Your task to perform on an android device: open sync settings in chrome Image 0: 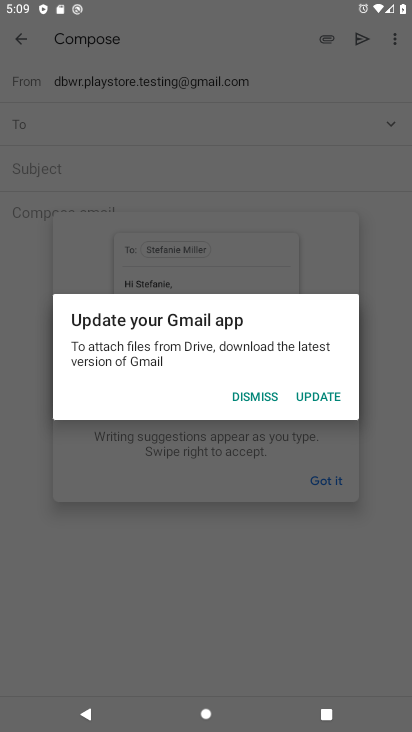
Step 0: press back button
Your task to perform on an android device: open sync settings in chrome Image 1: 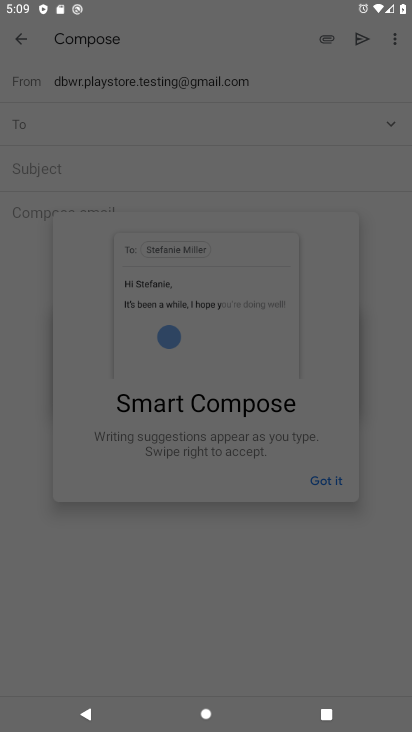
Step 1: press home button
Your task to perform on an android device: open sync settings in chrome Image 2: 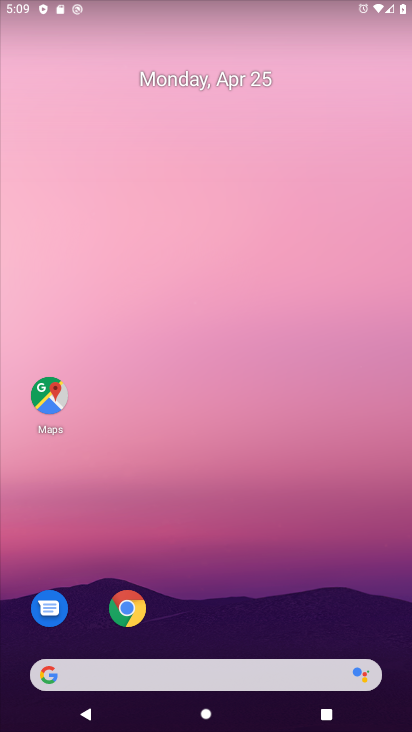
Step 2: drag from (273, 597) to (298, 16)
Your task to perform on an android device: open sync settings in chrome Image 3: 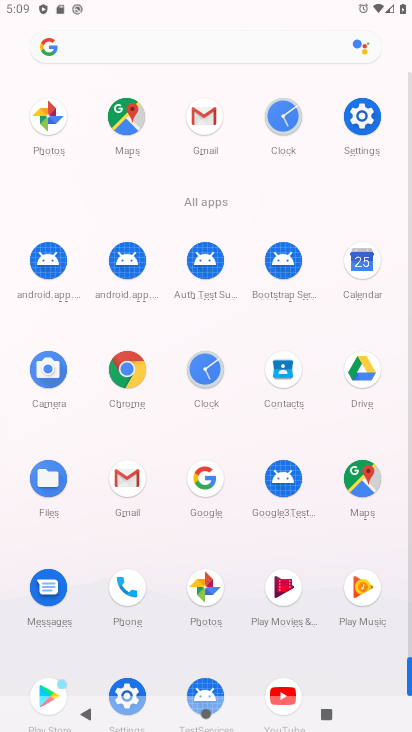
Step 3: drag from (11, 473) to (14, 167)
Your task to perform on an android device: open sync settings in chrome Image 4: 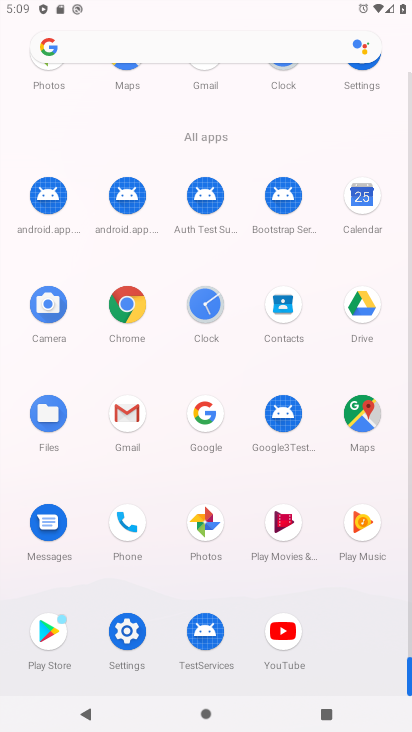
Step 4: click (130, 305)
Your task to perform on an android device: open sync settings in chrome Image 5: 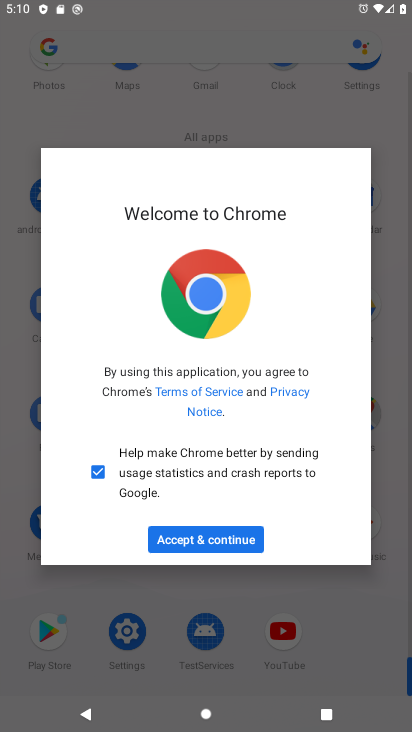
Step 5: click (238, 547)
Your task to perform on an android device: open sync settings in chrome Image 6: 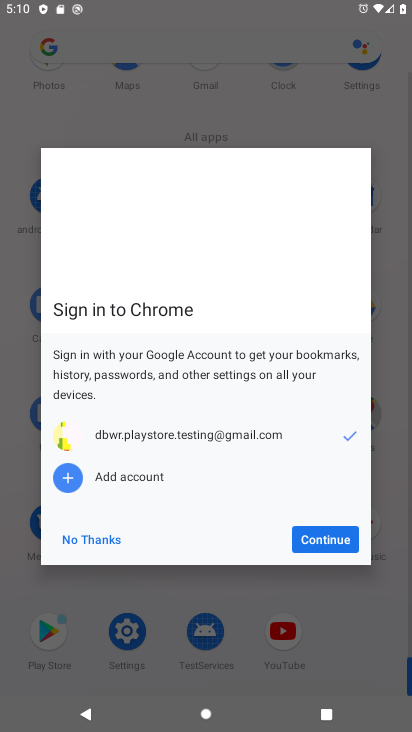
Step 6: click (307, 544)
Your task to perform on an android device: open sync settings in chrome Image 7: 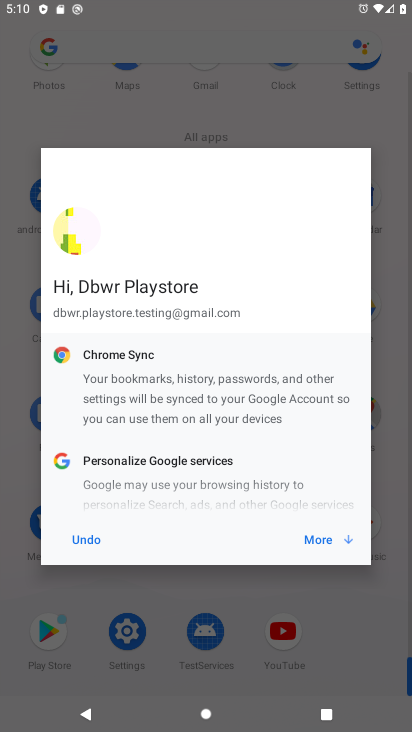
Step 7: click (311, 540)
Your task to perform on an android device: open sync settings in chrome Image 8: 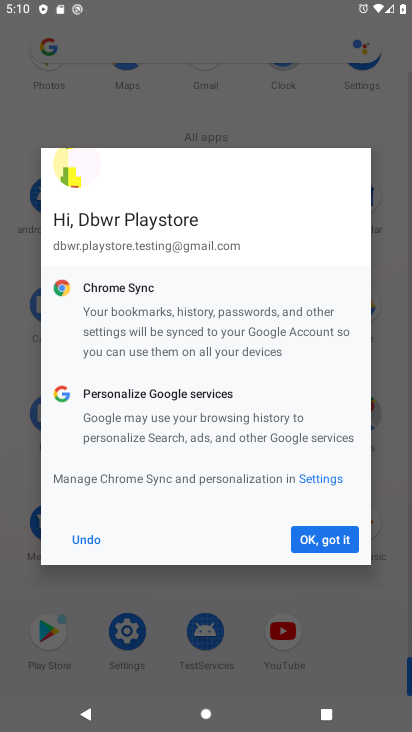
Step 8: click (311, 540)
Your task to perform on an android device: open sync settings in chrome Image 9: 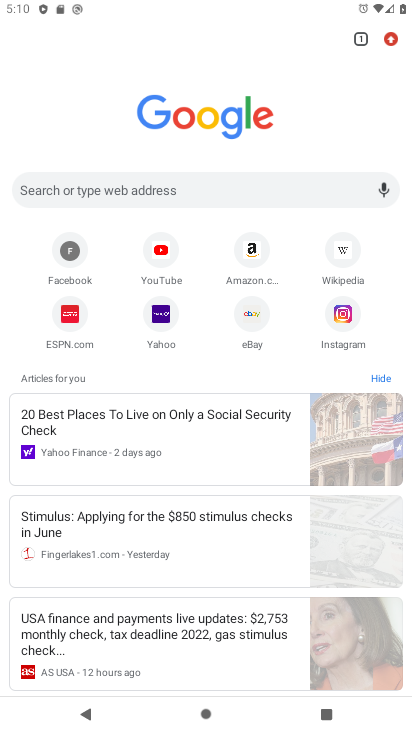
Step 9: click (197, 186)
Your task to perform on an android device: open sync settings in chrome Image 10: 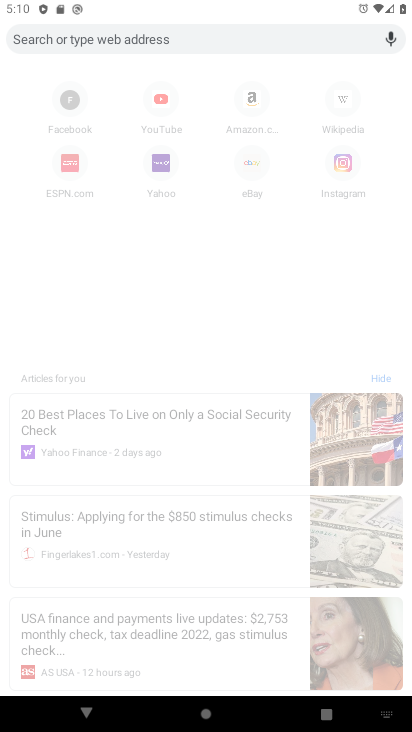
Step 10: press back button
Your task to perform on an android device: open sync settings in chrome Image 11: 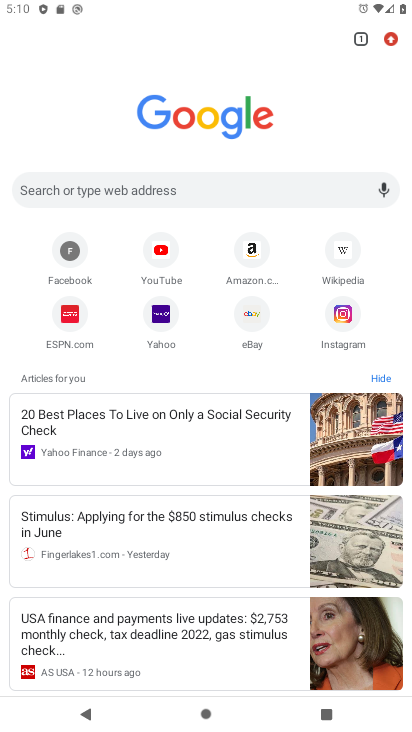
Step 11: drag from (384, 39) to (259, 359)
Your task to perform on an android device: open sync settings in chrome Image 12: 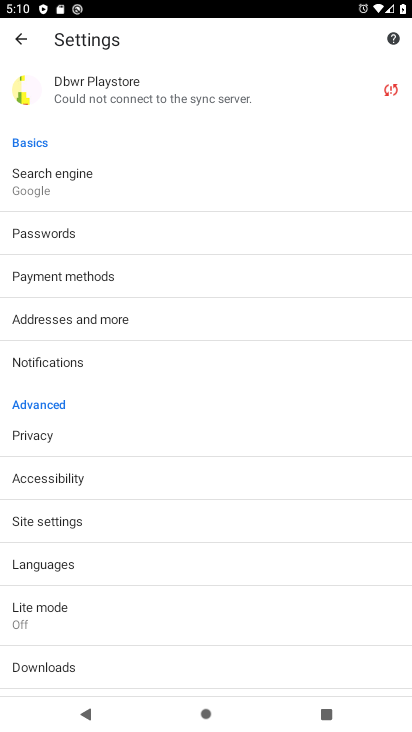
Step 12: click (118, 89)
Your task to perform on an android device: open sync settings in chrome Image 13: 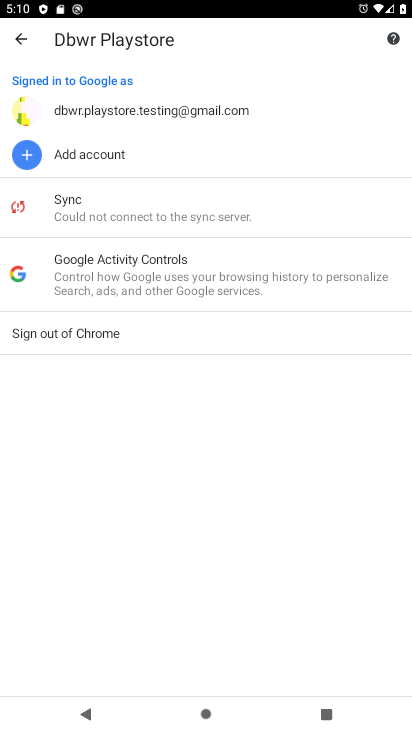
Step 13: click (108, 204)
Your task to perform on an android device: open sync settings in chrome Image 14: 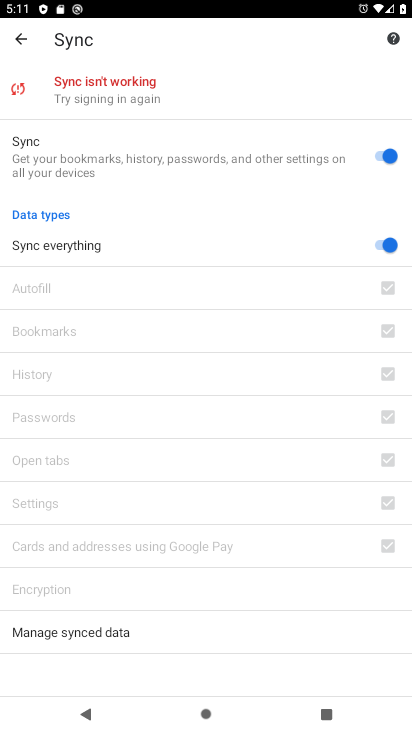
Step 14: task complete